Your task to perform on an android device: What is the news today? Image 0: 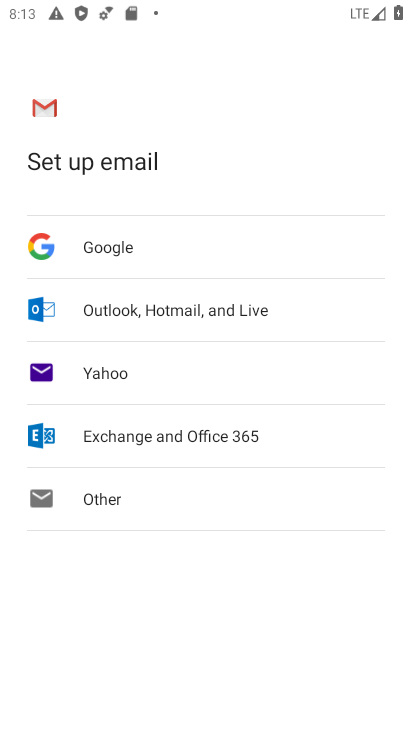
Step 0: press home button
Your task to perform on an android device: What is the news today? Image 1: 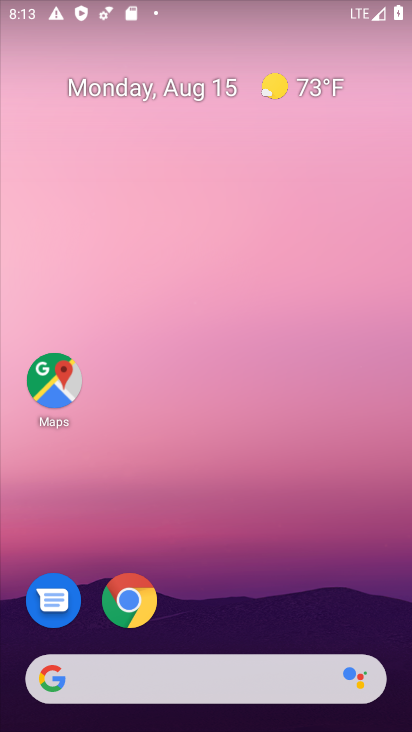
Step 1: drag from (0, 253) to (409, 333)
Your task to perform on an android device: What is the news today? Image 2: 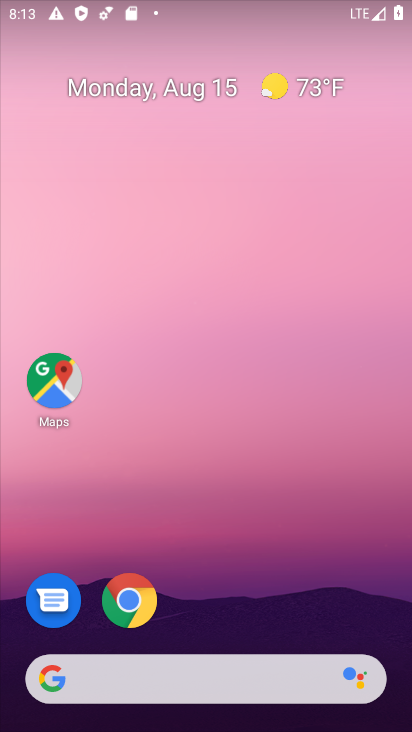
Step 2: drag from (227, 635) to (208, 16)
Your task to perform on an android device: What is the news today? Image 3: 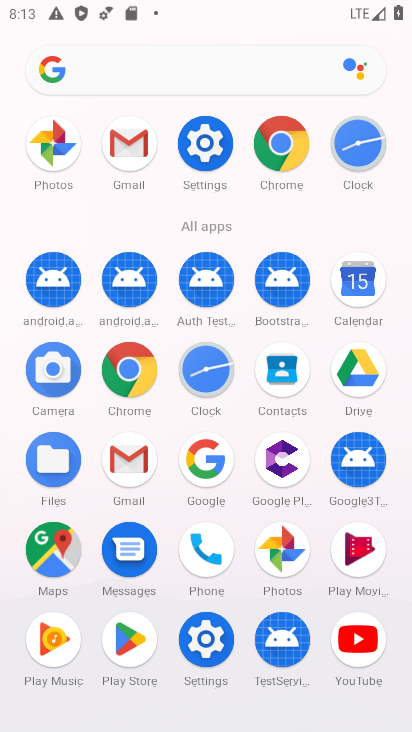
Step 3: click (204, 460)
Your task to perform on an android device: What is the news today? Image 4: 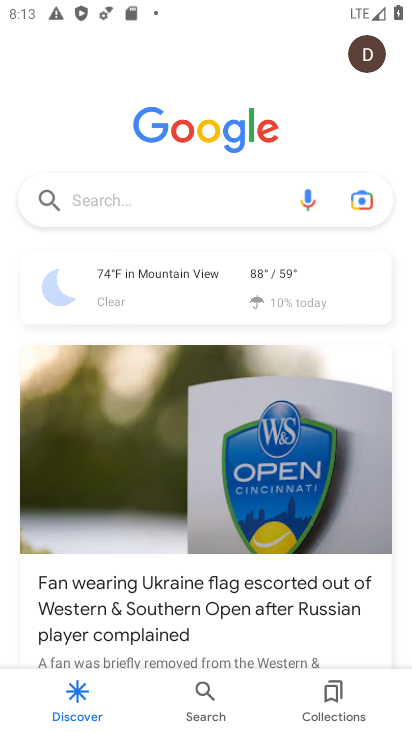
Step 4: task complete